Your task to perform on an android device: turn on data saver in the chrome app Image 0: 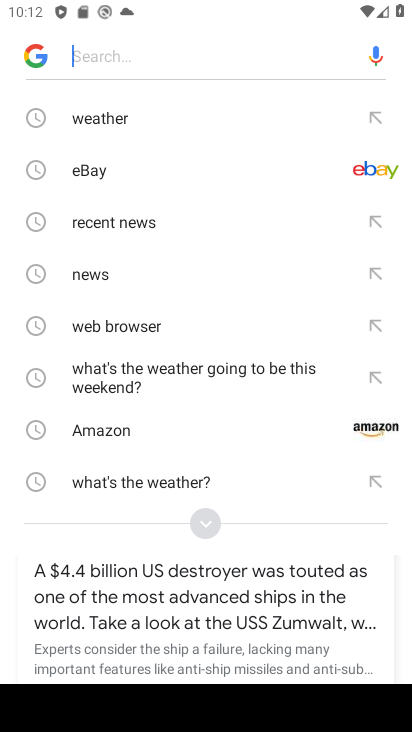
Step 0: press home button
Your task to perform on an android device: turn on data saver in the chrome app Image 1: 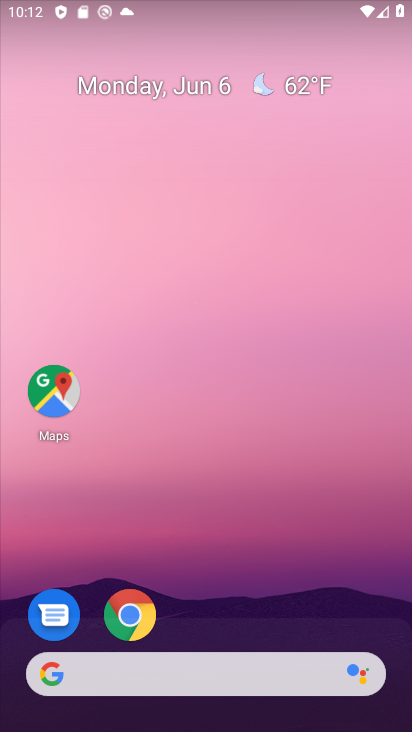
Step 1: click (140, 613)
Your task to perform on an android device: turn on data saver in the chrome app Image 2: 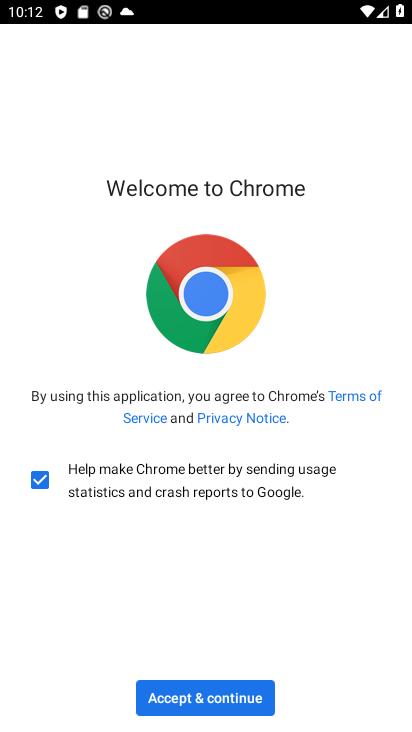
Step 2: click (176, 695)
Your task to perform on an android device: turn on data saver in the chrome app Image 3: 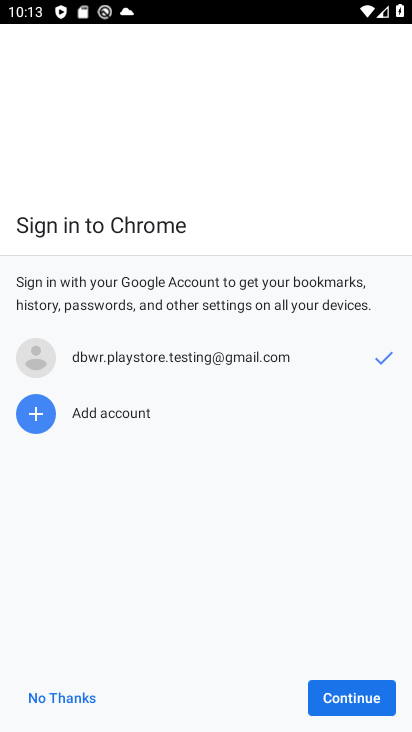
Step 3: click (331, 701)
Your task to perform on an android device: turn on data saver in the chrome app Image 4: 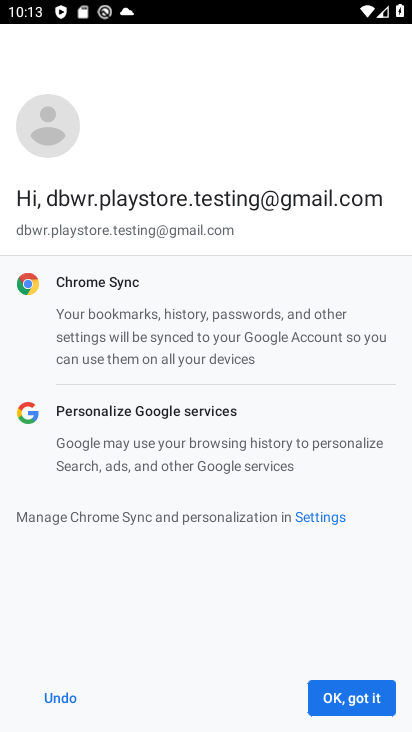
Step 4: click (339, 687)
Your task to perform on an android device: turn on data saver in the chrome app Image 5: 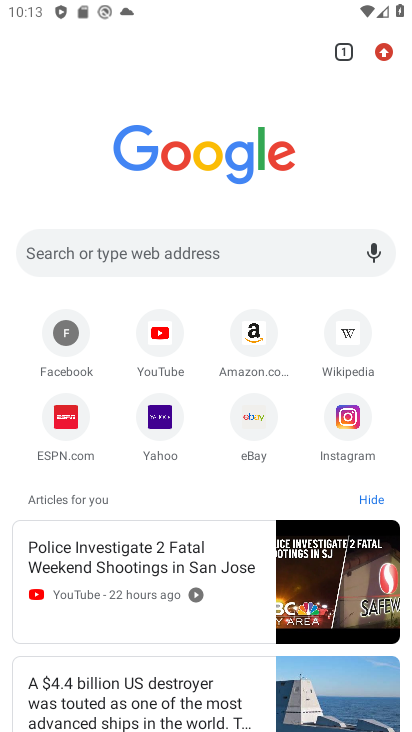
Step 5: drag from (386, 56) to (220, 497)
Your task to perform on an android device: turn on data saver in the chrome app Image 6: 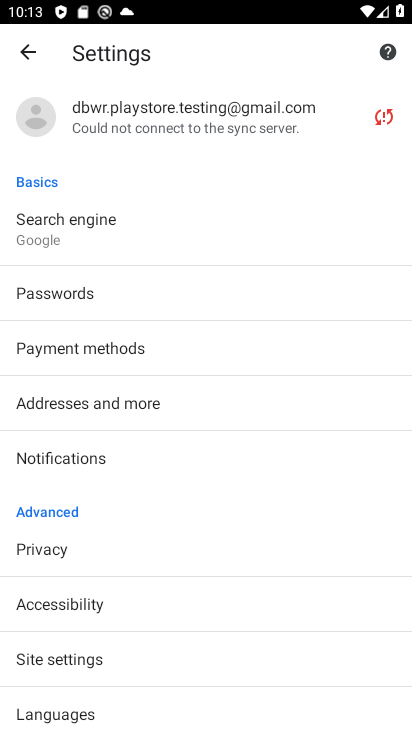
Step 6: drag from (74, 691) to (173, 307)
Your task to perform on an android device: turn on data saver in the chrome app Image 7: 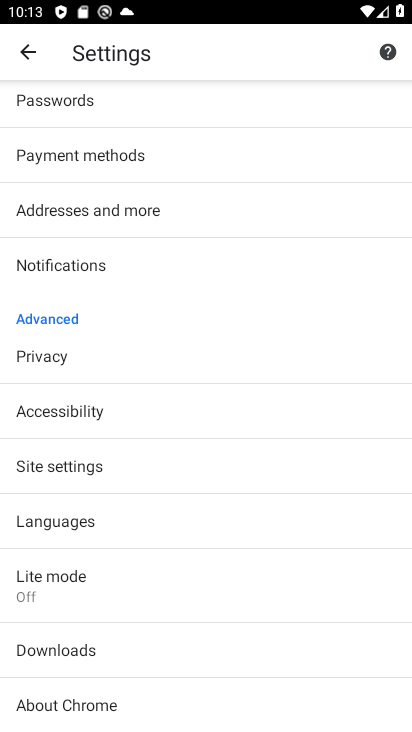
Step 7: click (85, 577)
Your task to perform on an android device: turn on data saver in the chrome app Image 8: 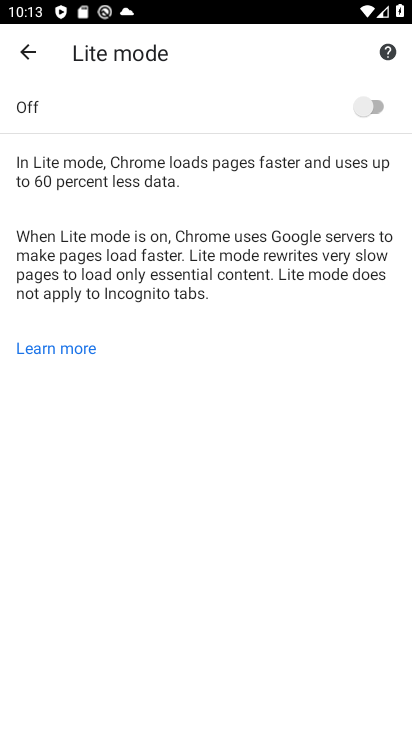
Step 8: click (368, 109)
Your task to perform on an android device: turn on data saver in the chrome app Image 9: 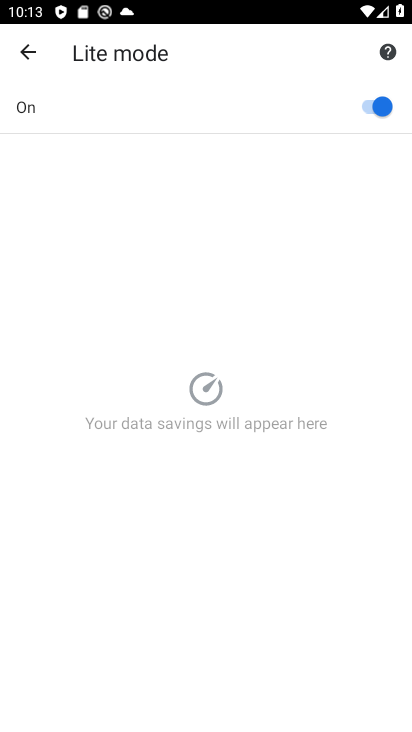
Step 9: task complete